Your task to perform on an android device: turn on location history Image 0: 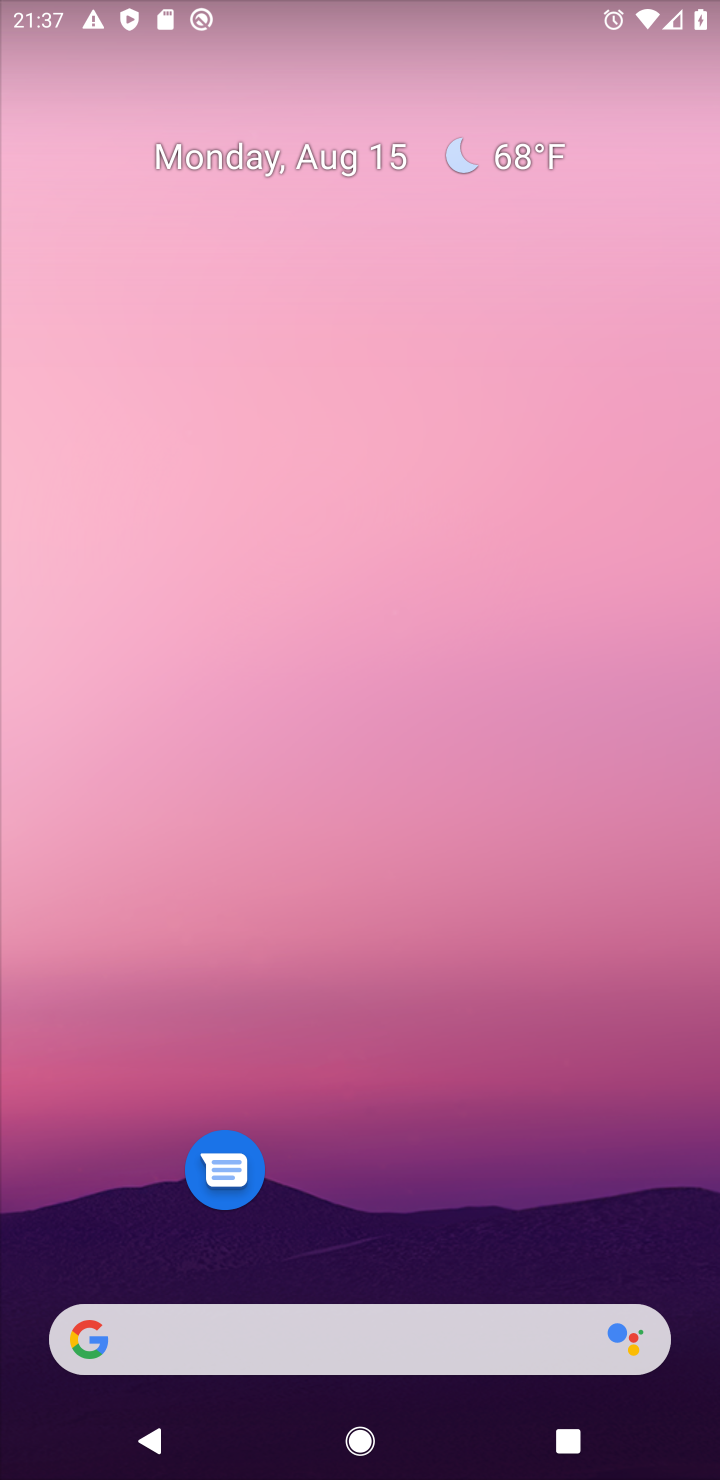
Step 0: drag from (417, 898) to (501, 200)
Your task to perform on an android device: turn on location history Image 1: 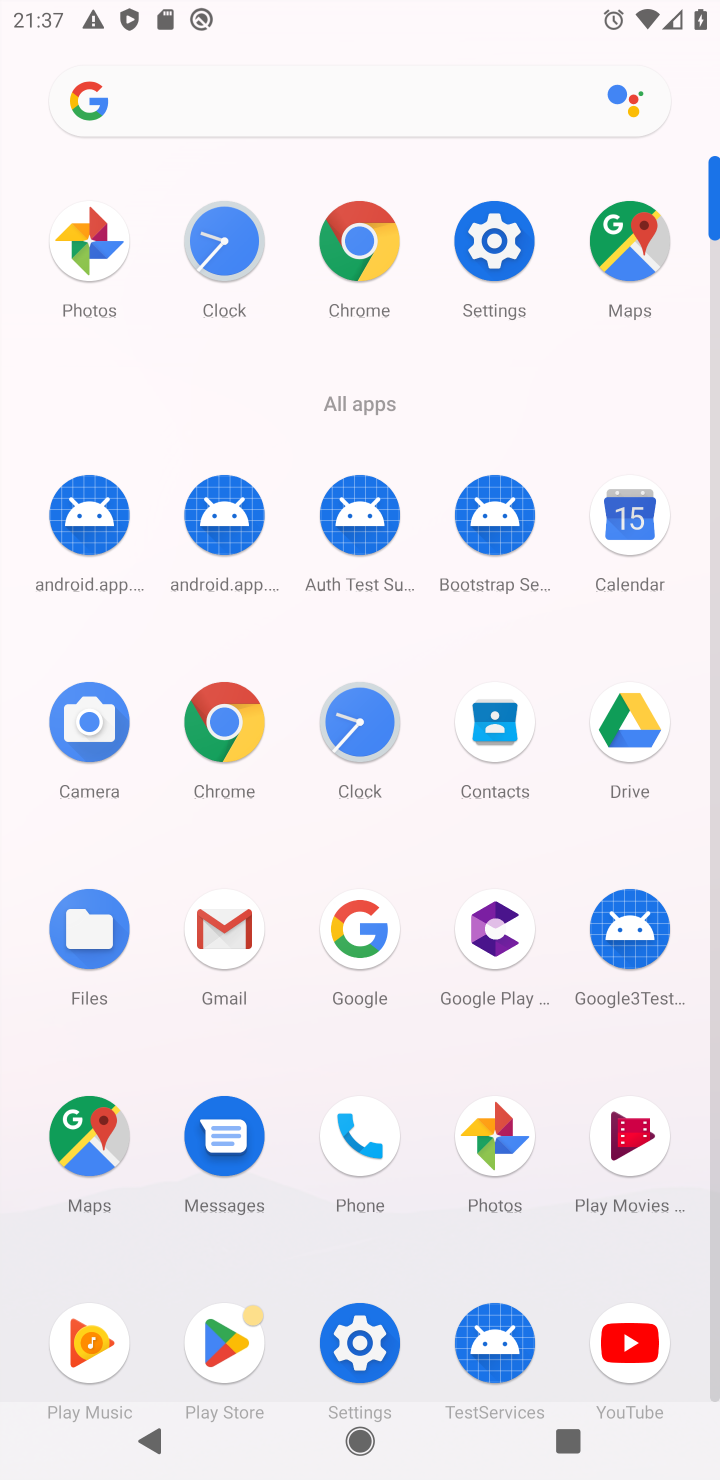
Step 1: click (484, 263)
Your task to perform on an android device: turn on location history Image 2: 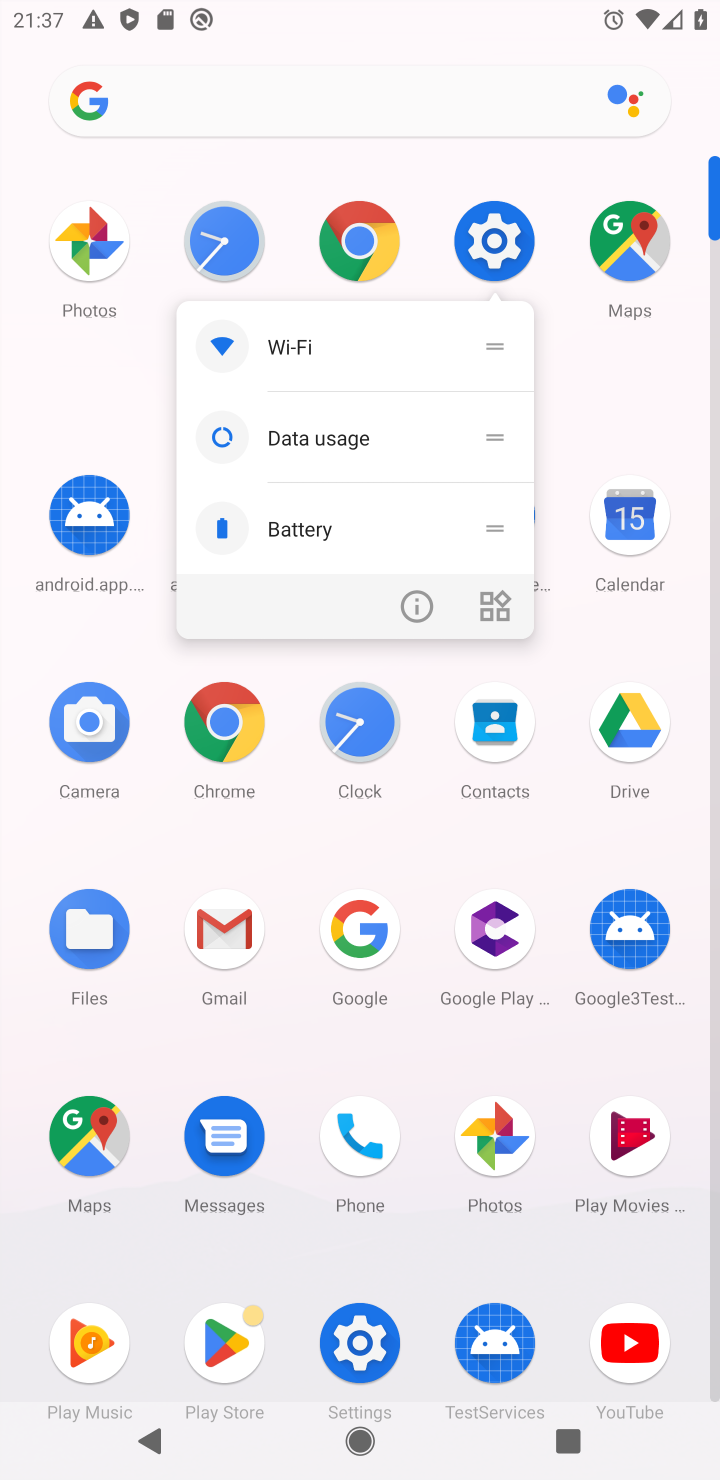
Step 2: click (482, 256)
Your task to perform on an android device: turn on location history Image 3: 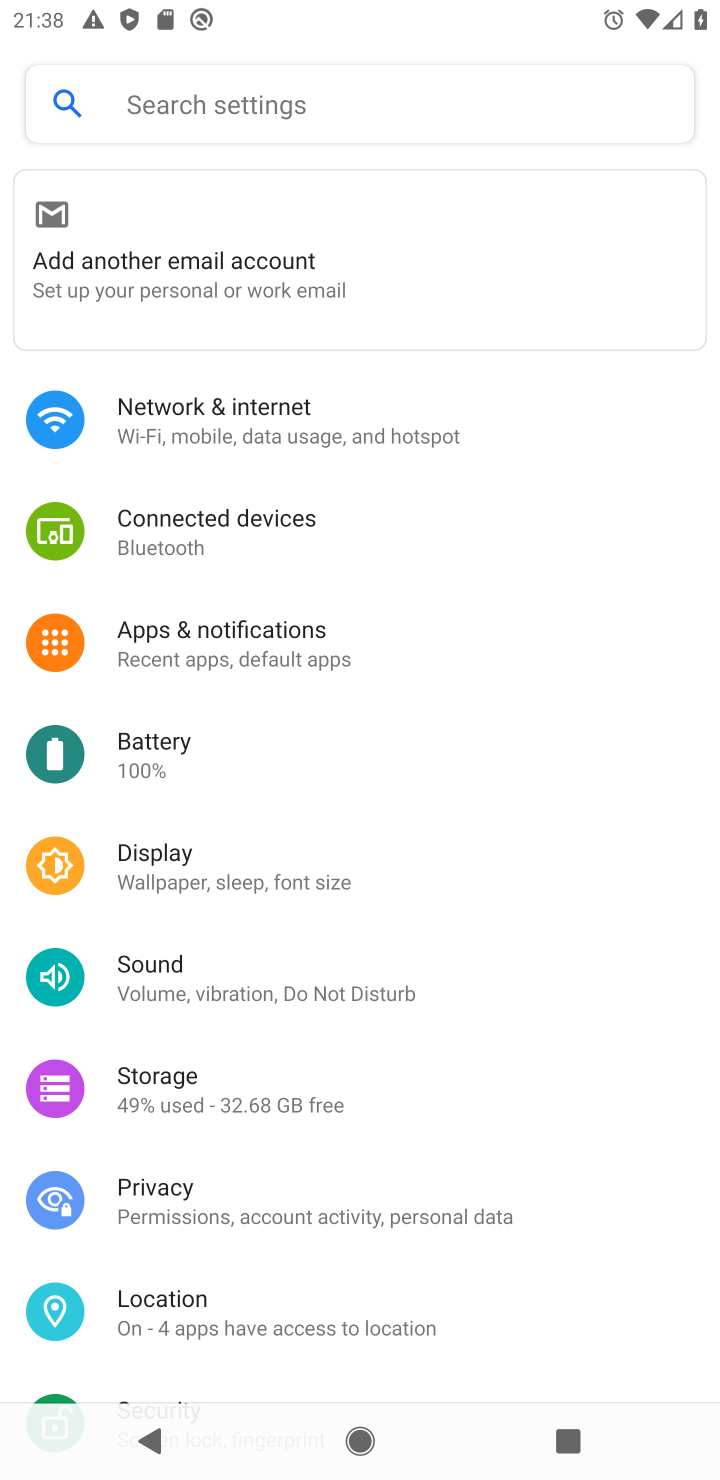
Step 3: drag from (283, 1149) to (376, 531)
Your task to perform on an android device: turn on location history Image 4: 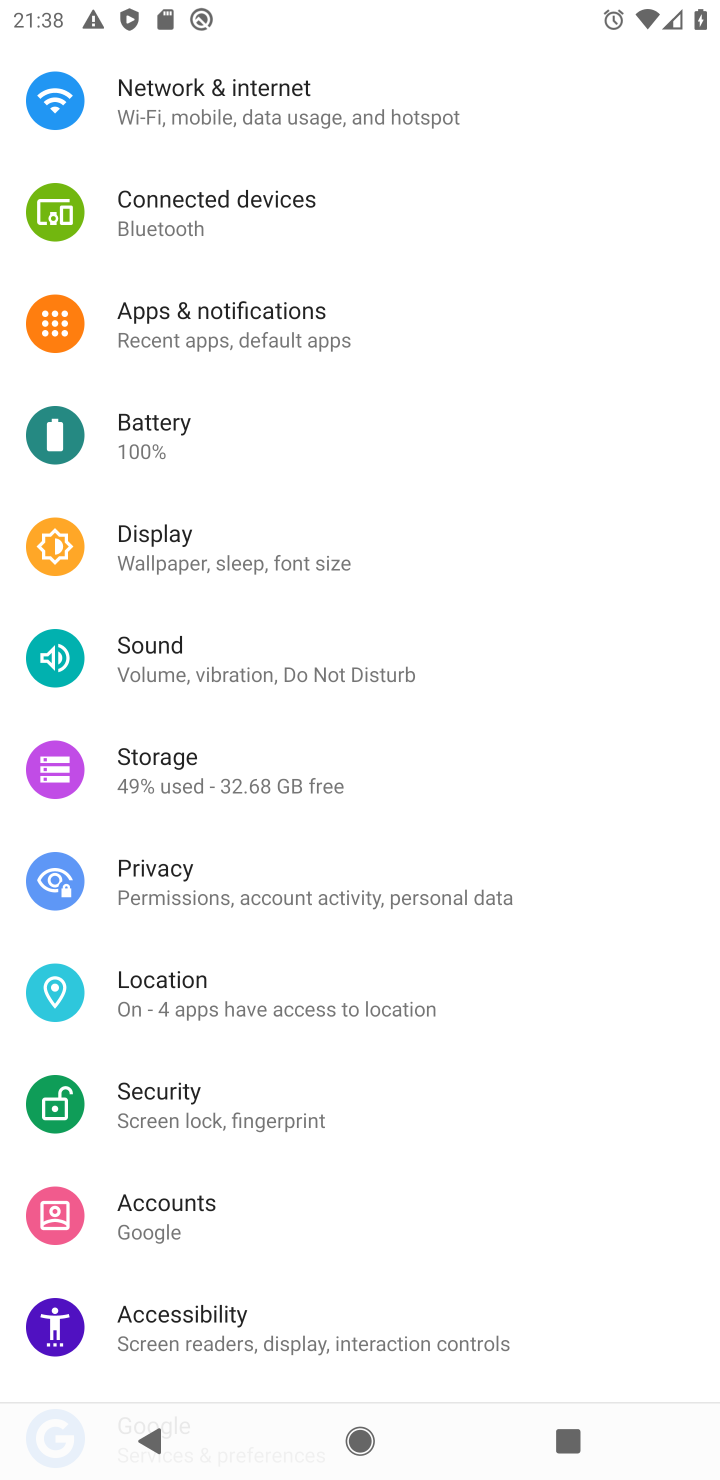
Step 4: click (171, 997)
Your task to perform on an android device: turn on location history Image 5: 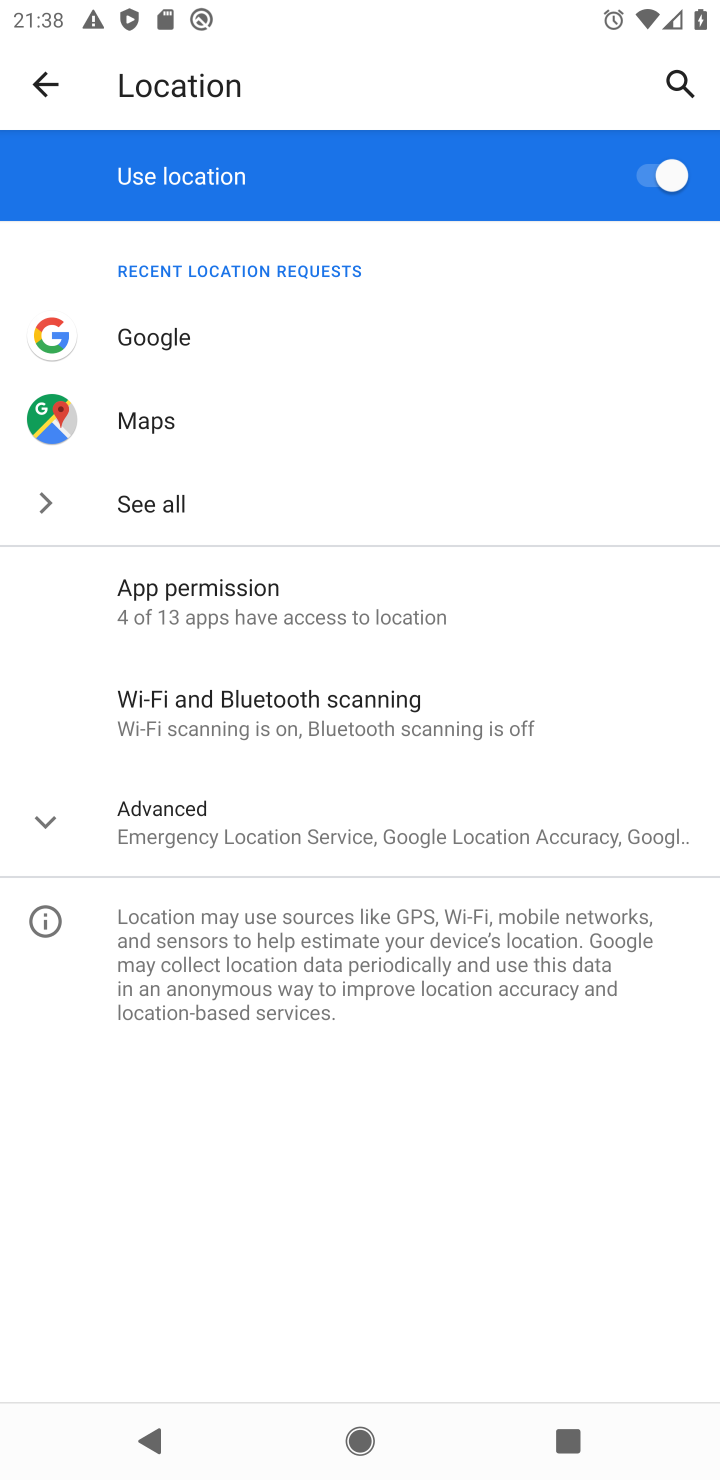
Step 5: click (156, 870)
Your task to perform on an android device: turn on location history Image 6: 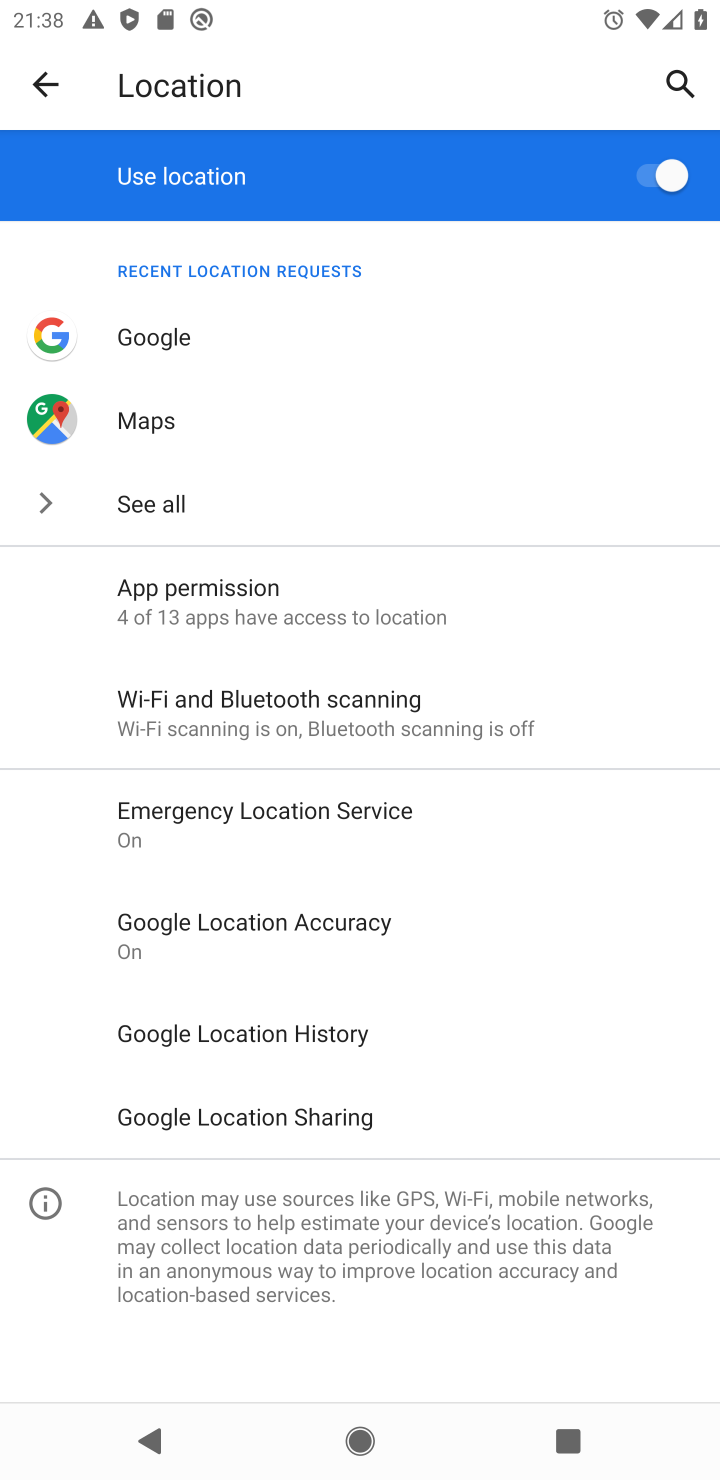
Step 6: click (254, 1045)
Your task to perform on an android device: turn on location history Image 7: 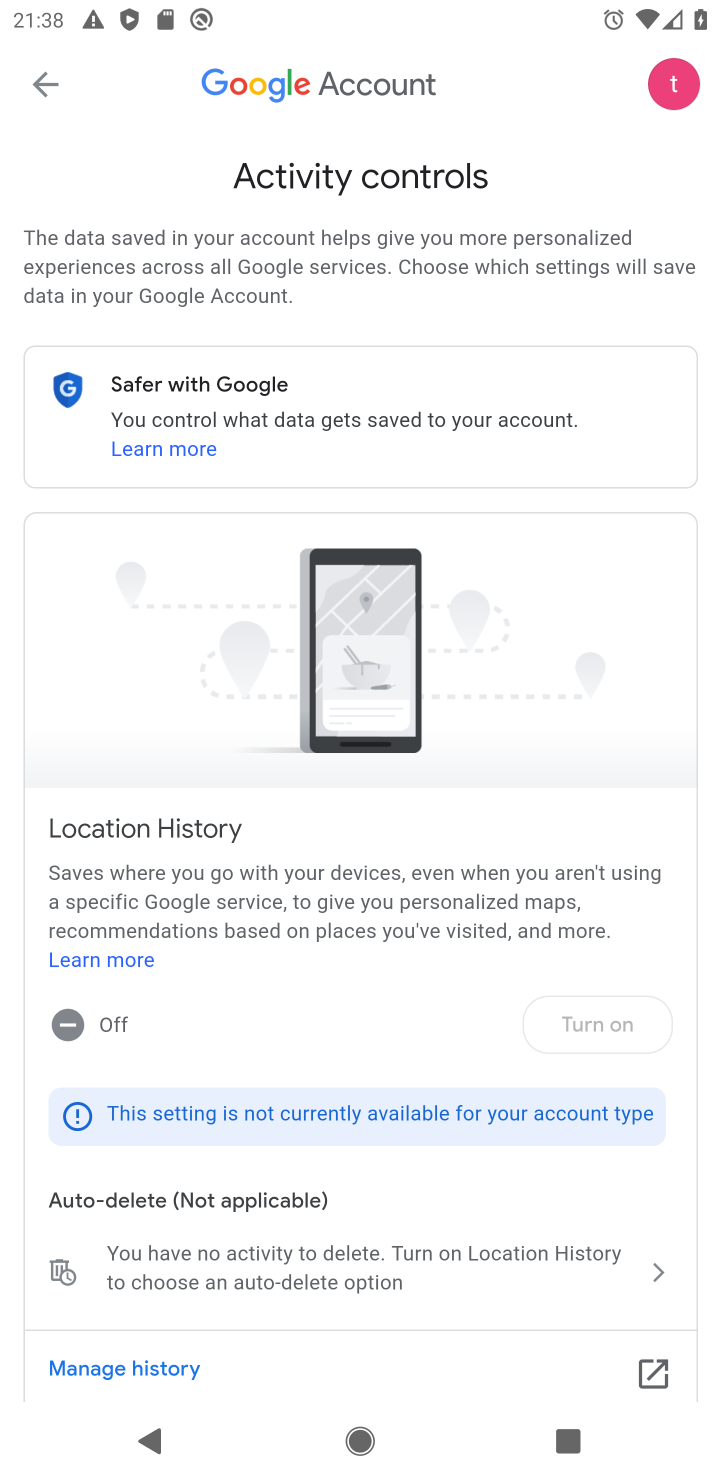
Step 7: task complete